Your task to perform on an android device: change the upload size in google photos Image 0: 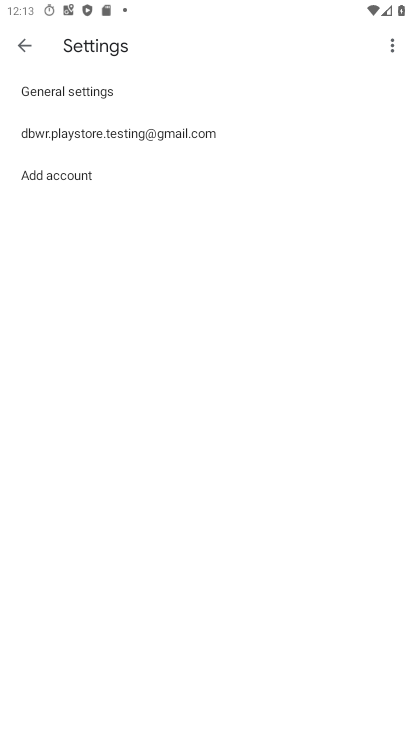
Step 0: press home button
Your task to perform on an android device: change the upload size in google photos Image 1: 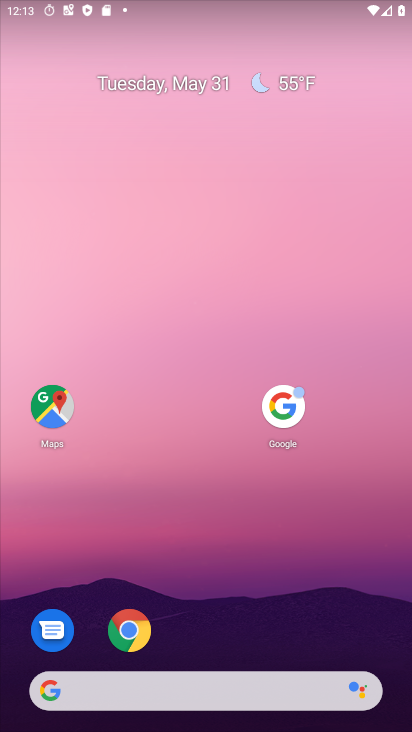
Step 1: drag from (139, 679) to (293, 119)
Your task to perform on an android device: change the upload size in google photos Image 2: 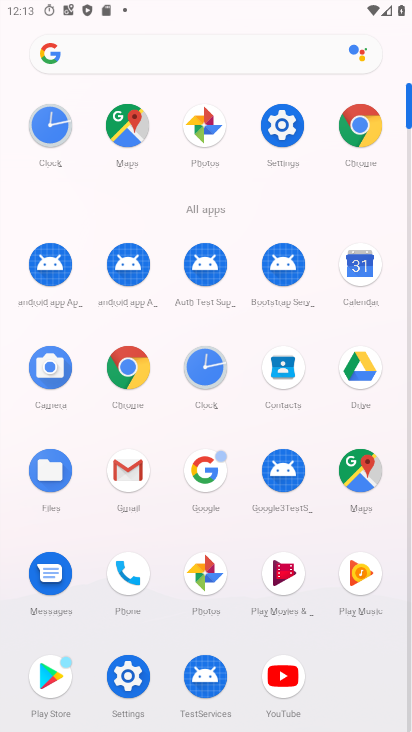
Step 2: click (198, 584)
Your task to perform on an android device: change the upload size in google photos Image 3: 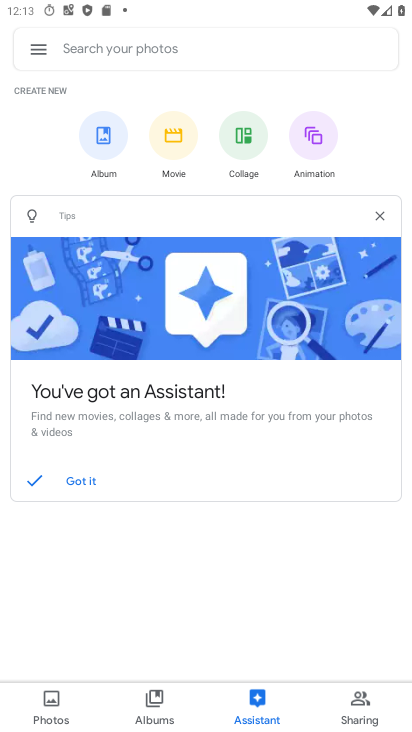
Step 3: click (37, 48)
Your task to perform on an android device: change the upload size in google photos Image 4: 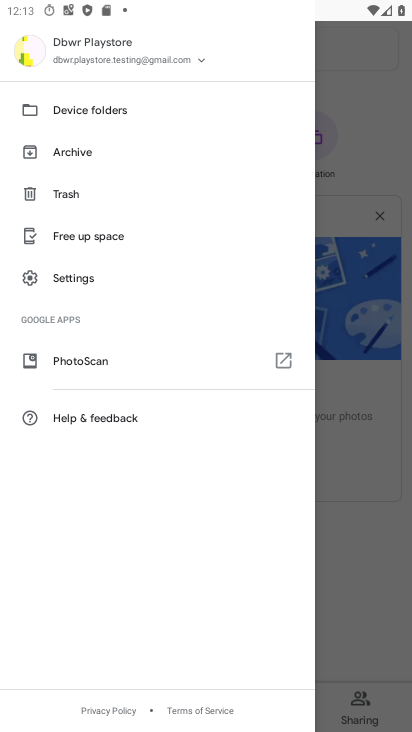
Step 4: click (68, 271)
Your task to perform on an android device: change the upload size in google photos Image 5: 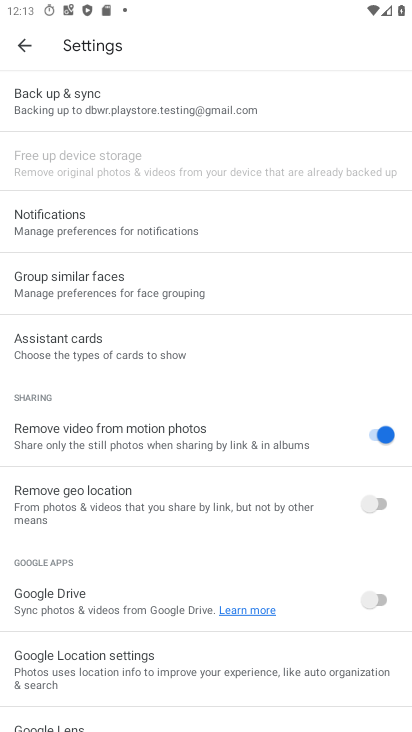
Step 5: click (145, 120)
Your task to perform on an android device: change the upload size in google photos Image 6: 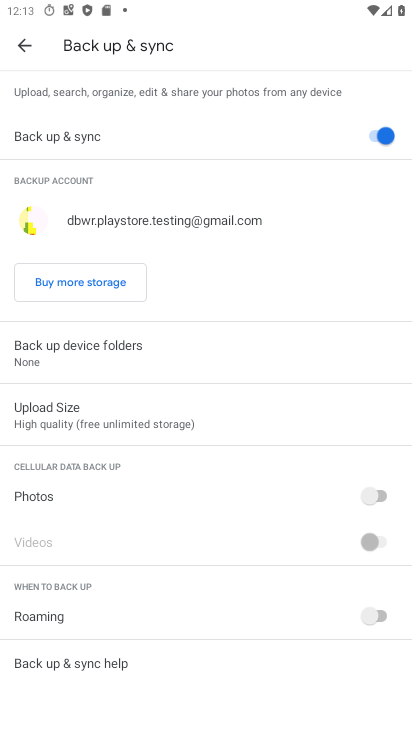
Step 6: click (121, 413)
Your task to perform on an android device: change the upload size in google photos Image 7: 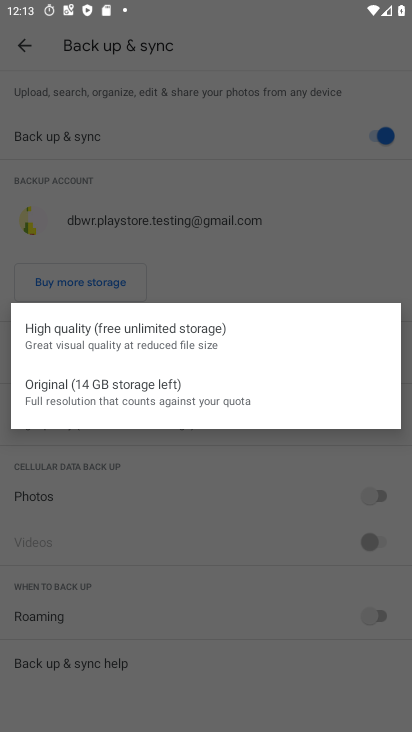
Step 7: click (79, 390)
Your task to perform on an android device: change the upload size in google photos Image 8: 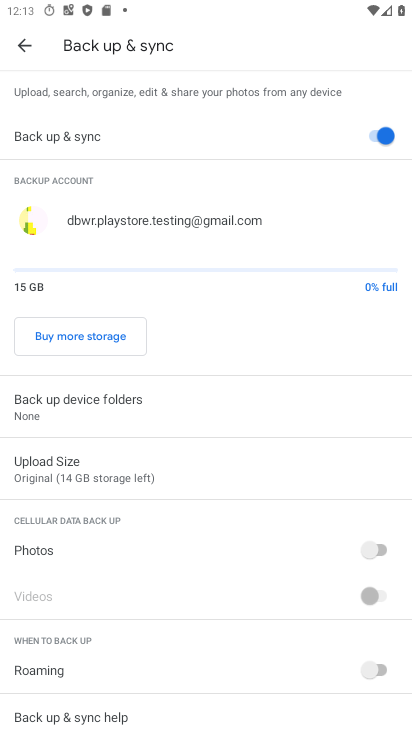
Step 8: task complete